Your task to perform on an android device: install app "Mercado Libre" Image 0: 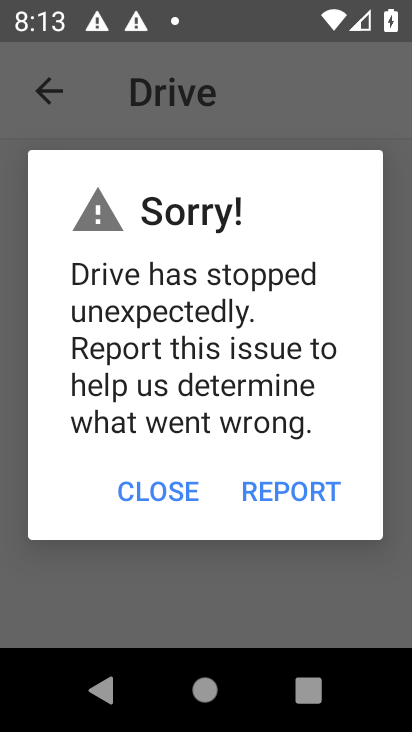
Step 0: press home button
Your task to perform on an android device: install app "Mercado Libre" Image 1: 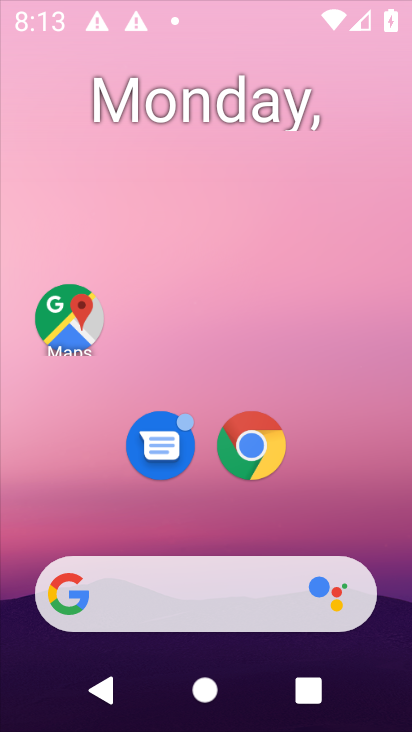
Step 1: drag from (378, 649) to (252, 70)
Your task to perform on an android device: install app "Mercado Libre" Image 2: 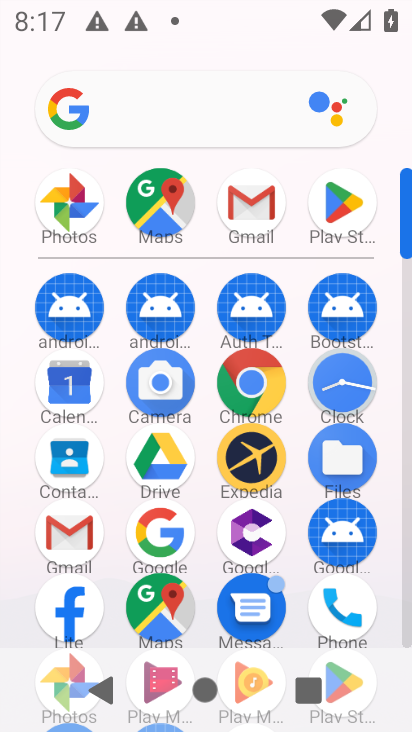
Step 2: click (360, 199)
Your task to perform on an android device: install app "Mercado Libre" Image 3: 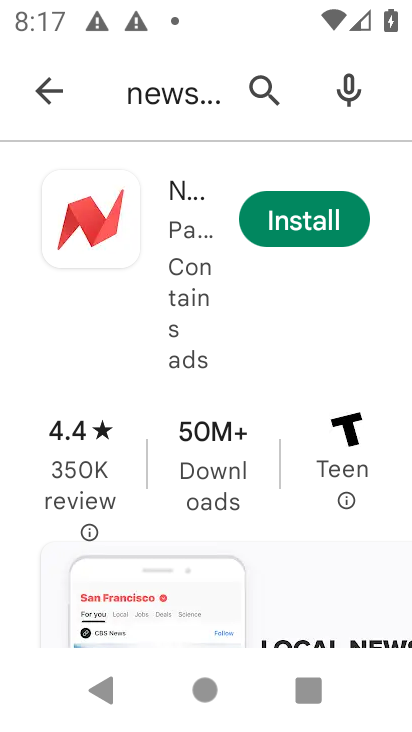
Step 3: press back button
Your task to perform on an android device: install app "Mercado Libre" Image 4: 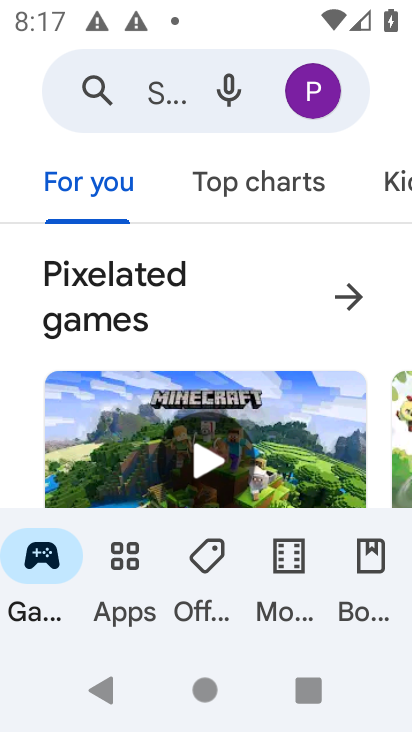
Step 4: click (151, 85)
Your task to perform on an android device: install app "Mercado Libre" Image 5: 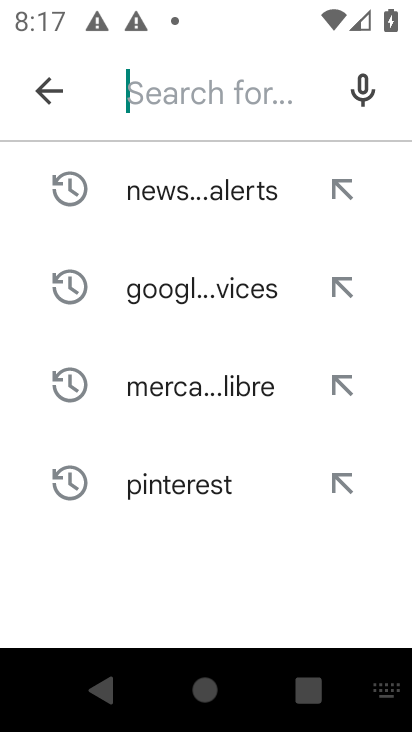
Step 5: type "Mercado Libre"
Your task to perform on an android device: install app "Mercado Libre" Image 6: 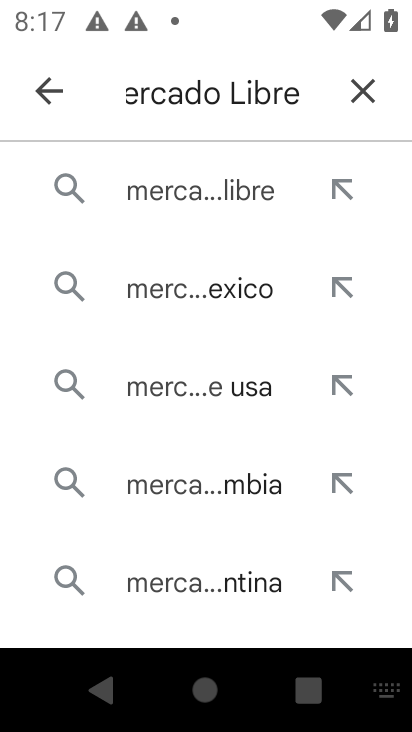
Step 6: click (212, 194)
Your task to perform on an android device: install app "Mercado Libre" Image 7: 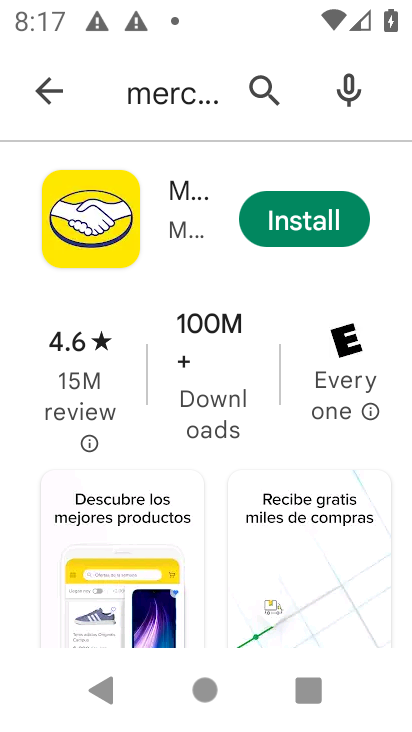
Step 7: click (350, 223)
Your task to perform on an android device: install app "Mercado Libre" Image 8: 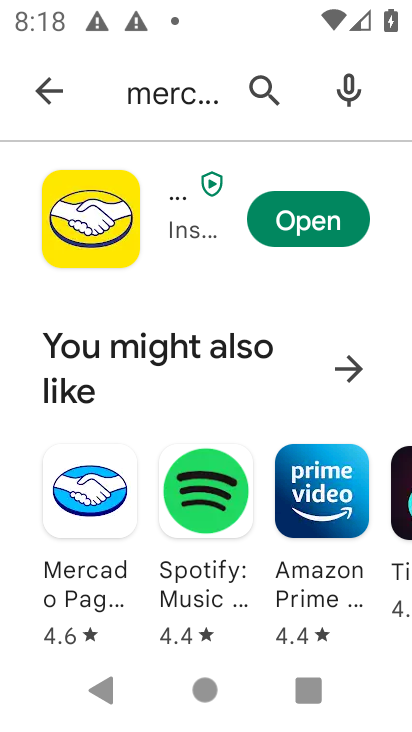
Step 8: task complete